Your task to perform on an android device: set an alarm Image 0: 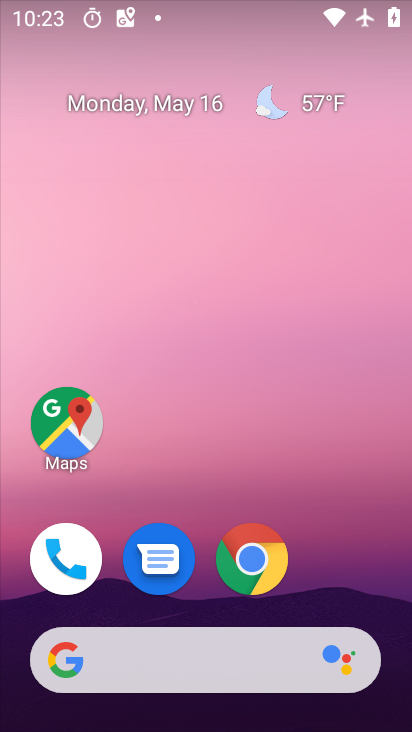
Step 0: drag from (327, 533) to (360, 87)
Your task to perform on an android device: set an alarm Image 1: 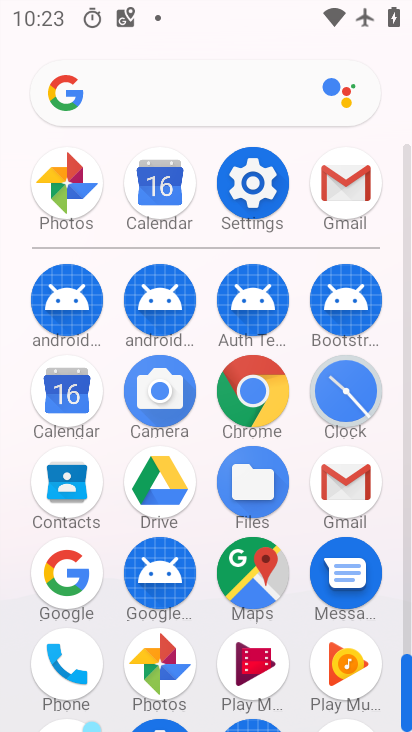
Step 1: click (358, 394)
Your task to perform on an android device: set an alarm Image 2: 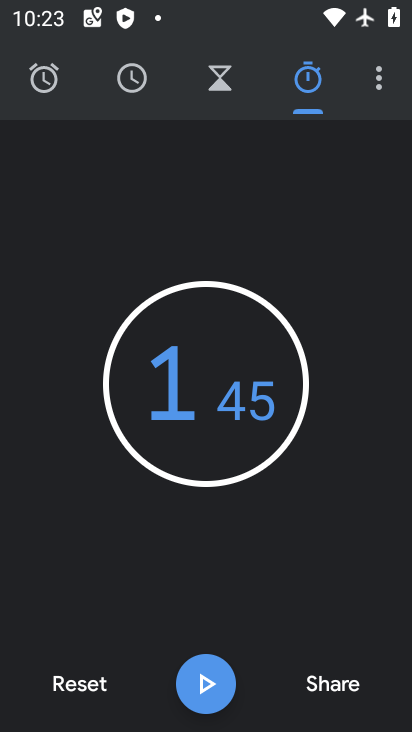
Step 2: click (44, 62)
Your task to perform on an android device: set an alarm Image 3: 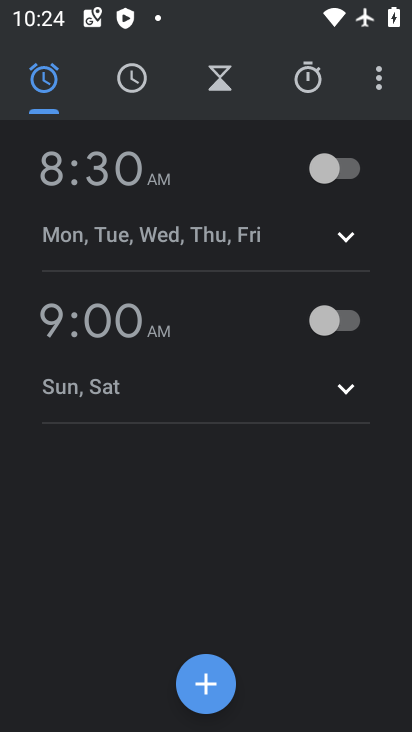
Step 3: click (210, 677)
Your task to perform on an android device: set an alarm Image 4: 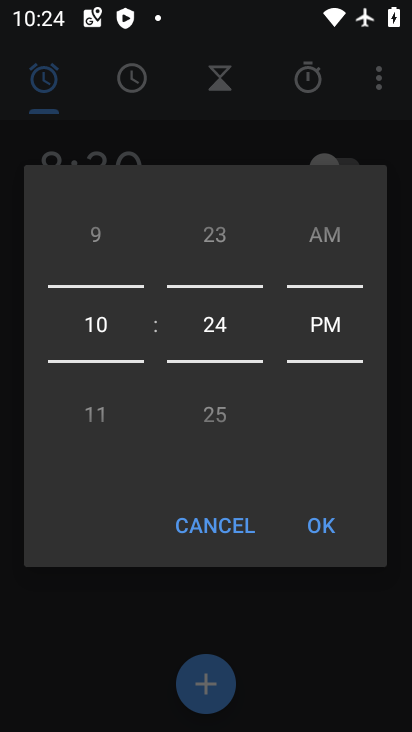
Step 4: click (324, 512)
Your task to perform on an android device: set an alarm Image 5: 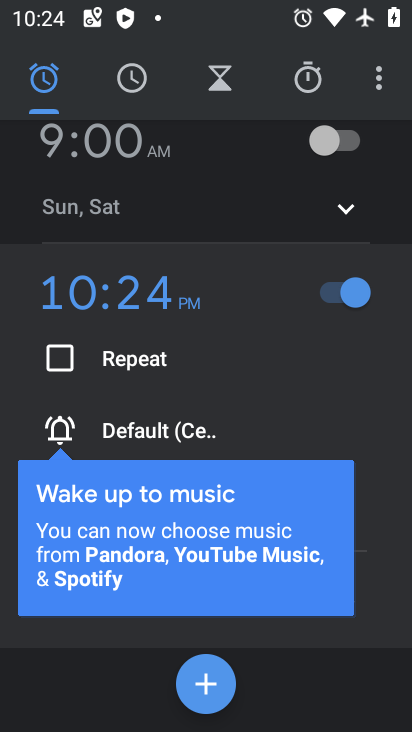
Step 5: task complete